Your task to perform on an android device: turn pop-ups off in chrome Image 0: 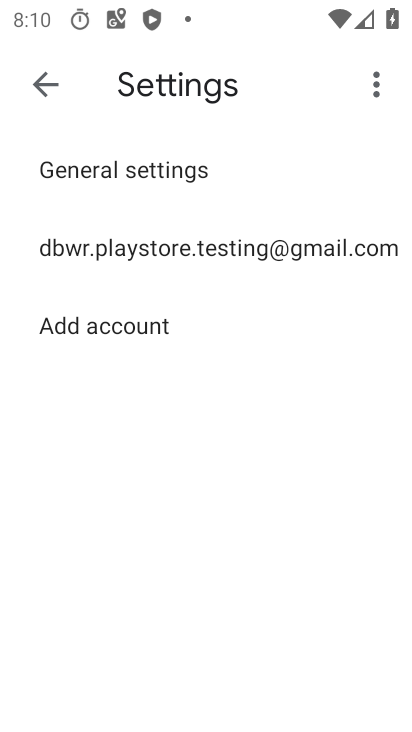
Step 0: press home button
Your task to perform on an android device: turn pop-ups off in chrome Image 1: 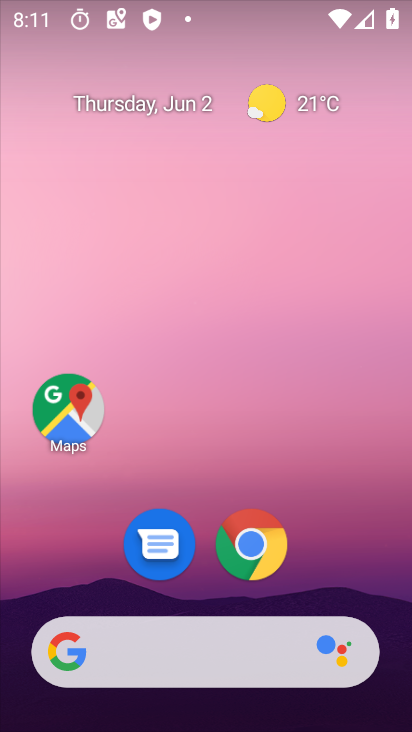
Step 1: click (266, 536)
Your task to perform on an android device: turn pop-ups off in chrome Image 2: 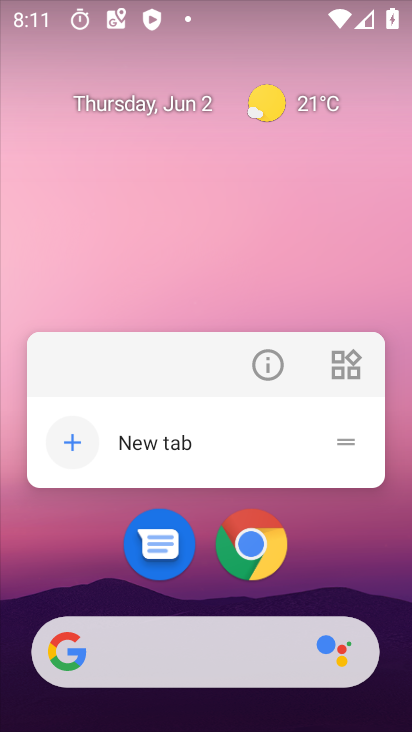
Step 2: click (266, 536)
Your task to perform on an android device: turn pop-ups off in chrome Image 3: 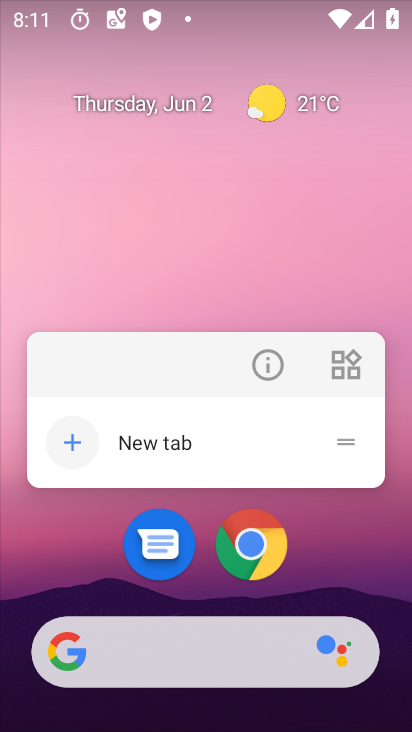
Step 3: click (246, 531)
Your task to perform on an android device: turn pop-ups off in chrome Image 4: 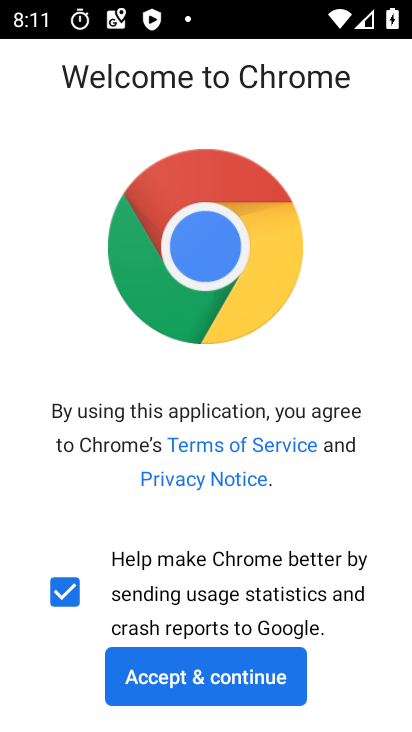
Step 4: click (242, 681)
Your task to perform on an android device: turn pop-ups off in chrome Image 5: 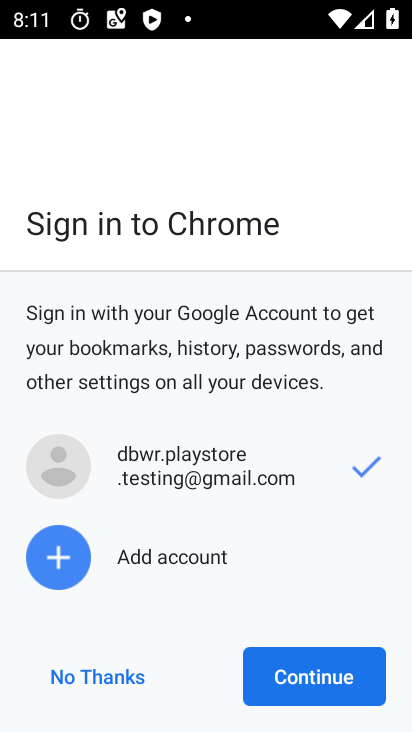
Step 5: click (275, 679)
Your task to perform on an android device: turn pop-ups off in chrome Image 6: 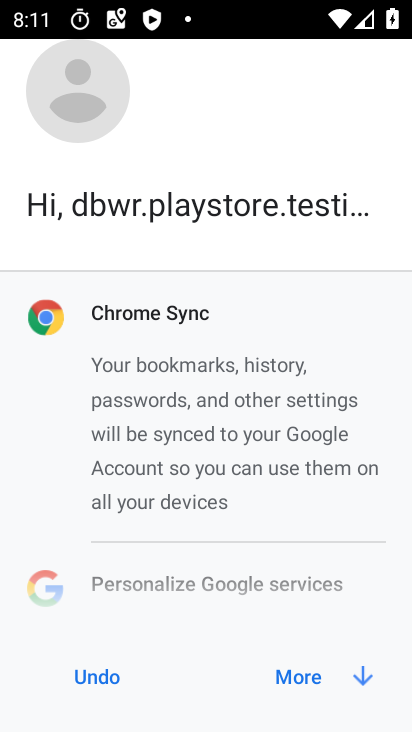
Step 6: click (275, 679)
Your task to perform on an android device: turn pop-ups off in chrome Image 7: 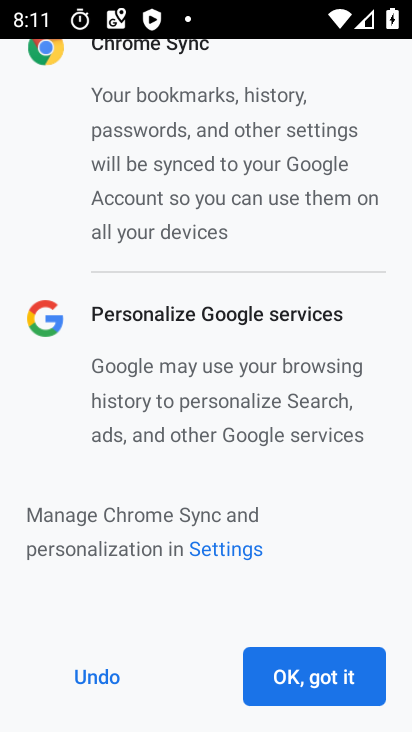
Step 7: click (275, 679)
Your task to perform on an android device: turn pop-ups off in chrome Image 8: 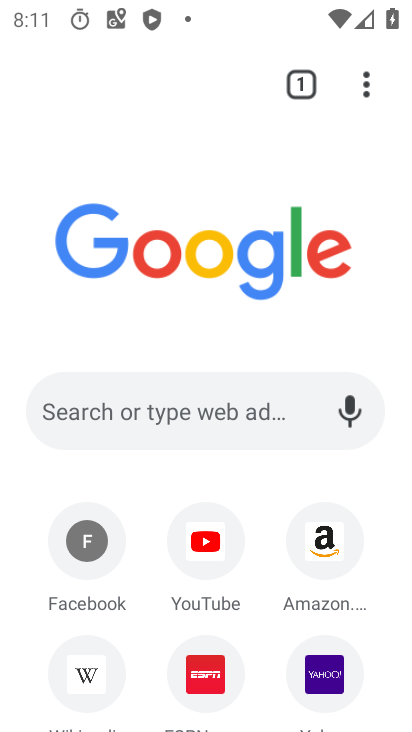
Step 8: click (357, 94)
Your task to perform on an android device: turn pop-ups off in chrome Image 9: 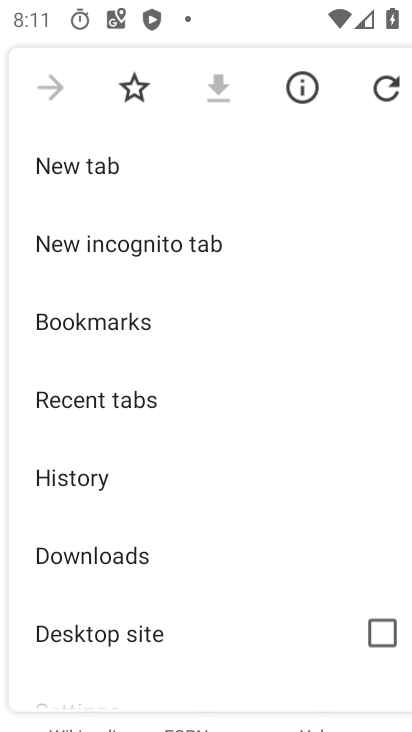
Step 9: drag from (259, 611) to (137, 168)
Your task to perform on an android device: turn pop-ups off in chrome Image 10: 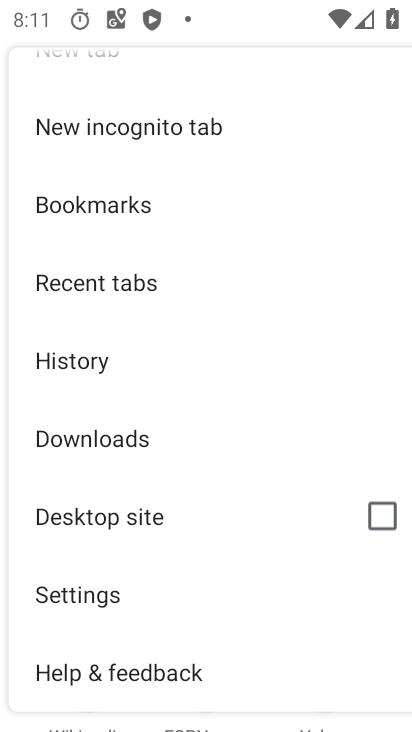
Step 10: click (108, 609)
Your task to perform on an android device: turn pop-ups off in chrome Image 11: 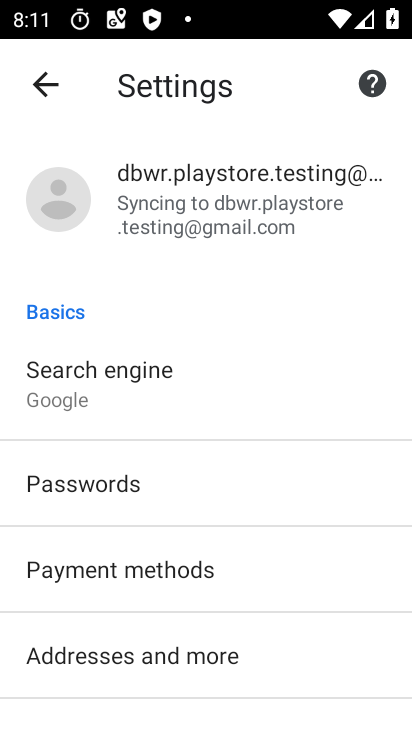
Step 11: drag from (221, 633) to (142, 228)
Your task to perform on an android device: turn pop-ups off in chrome Image 12: 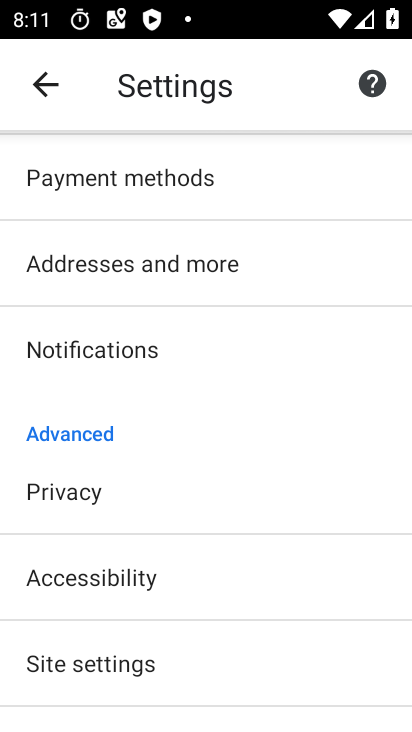
Step 12: drag from (237, 645) to (237, 376)
Your task to perform on an android device: turn pop-ups off in chrome Image 13: 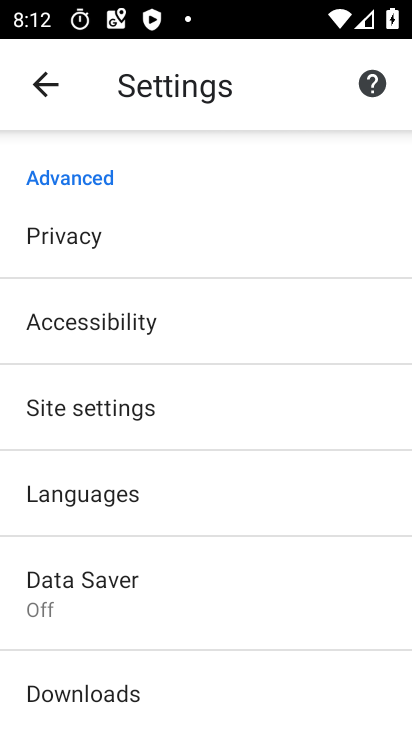
Step 13: click (222, 414)
Your task to perform on an android device: turn pop-ups off in chrome Image 14: 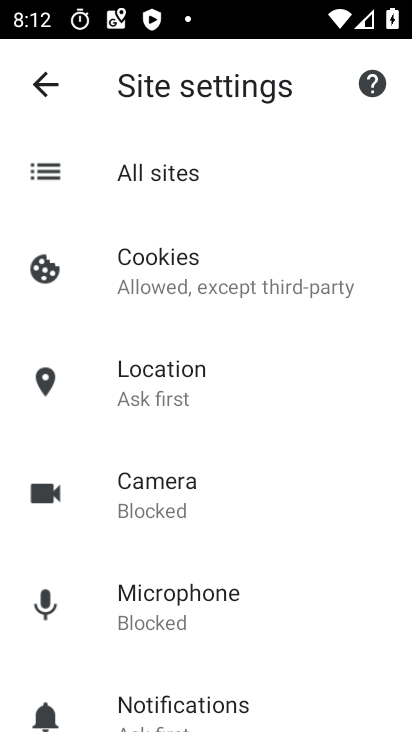
Step 14: drag from (249, 618) to (236, 355)
Your task to perform on an android device: turn pop-ups off in chrome Image 15: 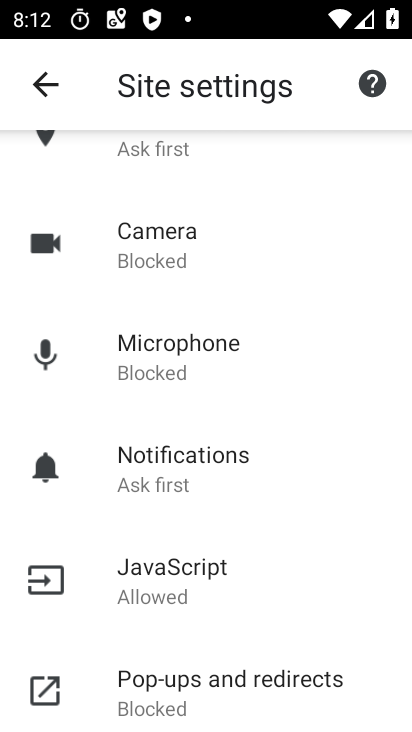
Step 15: click (260, 683)
Your task to perform on an android device: turn pop-ups off in chrome Image 16: 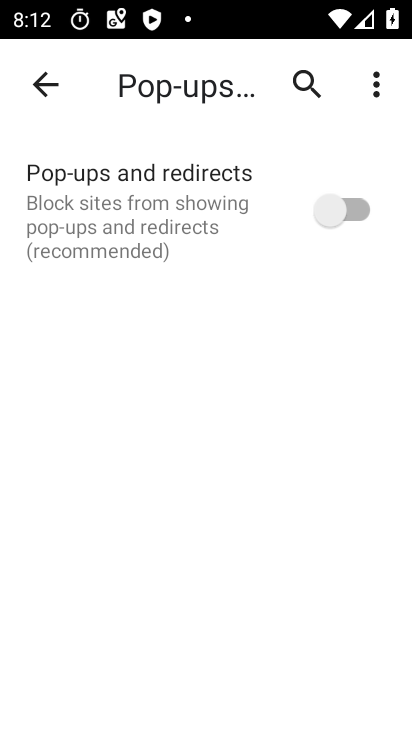
Step 16: task complete